Your task to perform on an android device: clear history in the chrome app Image 0: 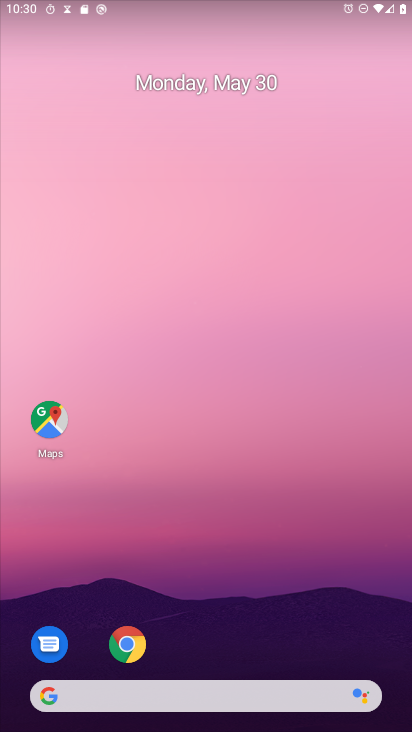
Step 0: click (131, 645)
Your task to perform on an android device: clear history in the chrome app Image 1: 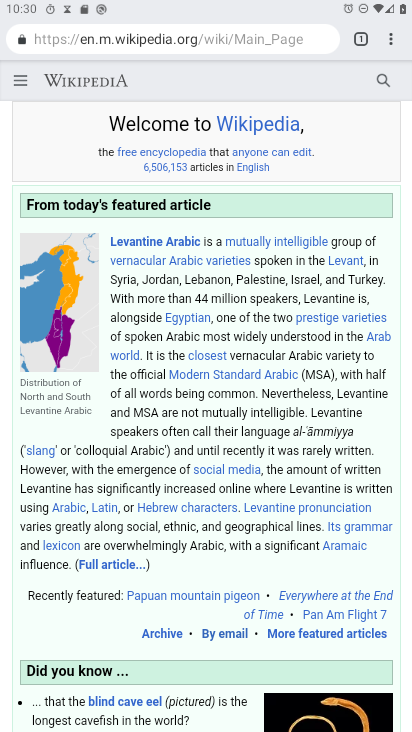
Step 1: click (385, 38)
Your task to perform on an android device: clear history in the chrome app Image 2: 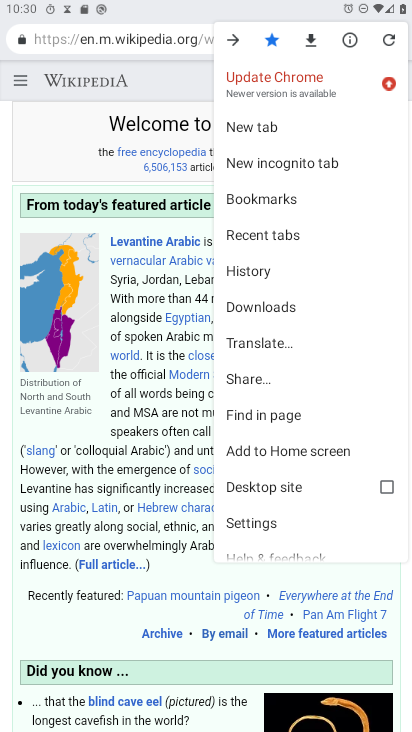
Step 2: click (273, 274)
Your task to perform on an android device: clear history in the chrome app Image 3: 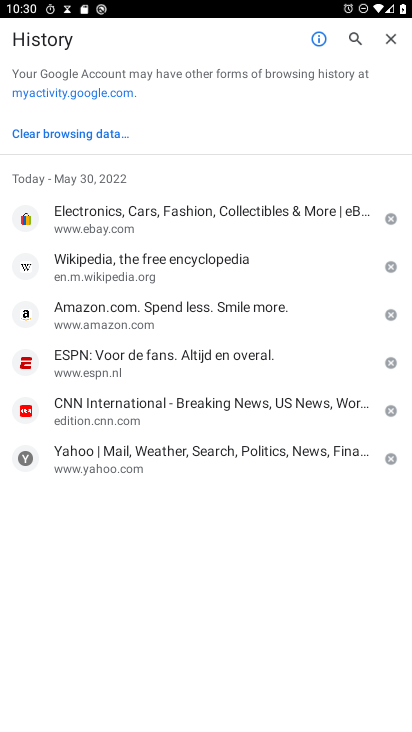
Step 3: click (107, 137)
Your task to perform on an android device: clear history in the chrome app Image 4: 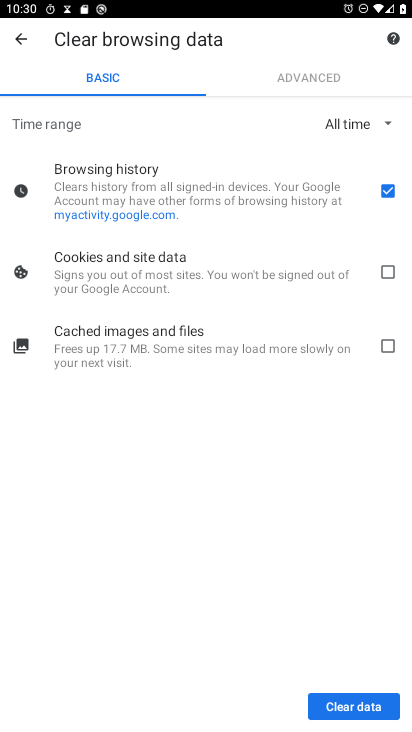
Step 4: click (342, 717)
Your task to perform on an android device: clear history in the chrome app Image 5: 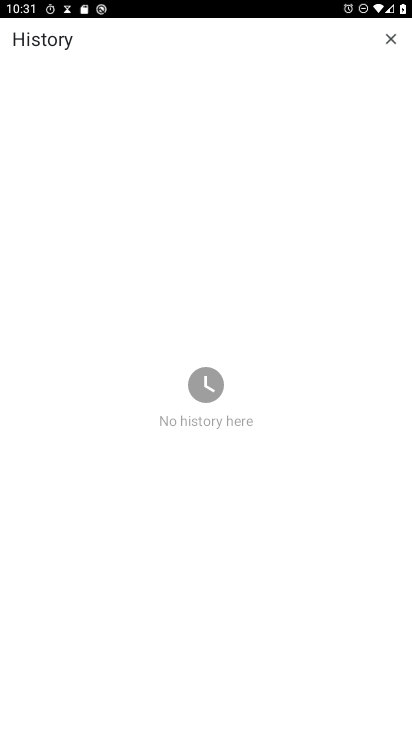
Step 5: task complete